Your task to perform on an android device: open chrome privacy settings Image 0: 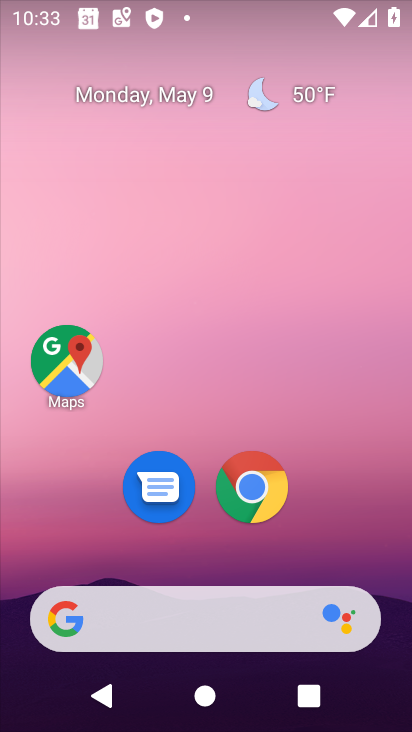
Step 0: click (256, 497)
Your task to perform on an android device: open chrome privacy settings Image 1: 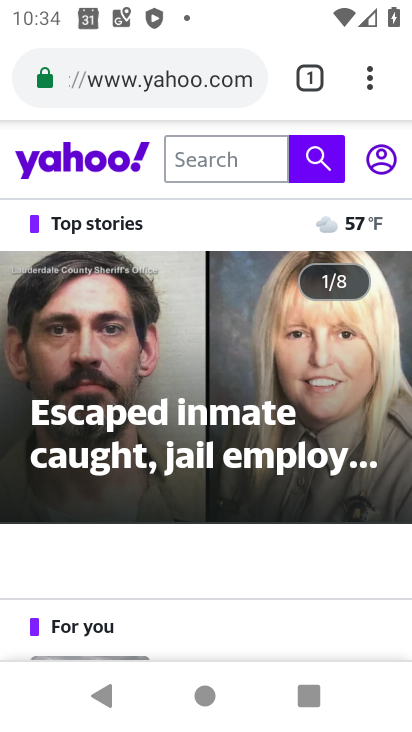
Step 1: click (371, 74)
Your task to perform on an android device: open chrome privacy settings Image 2: 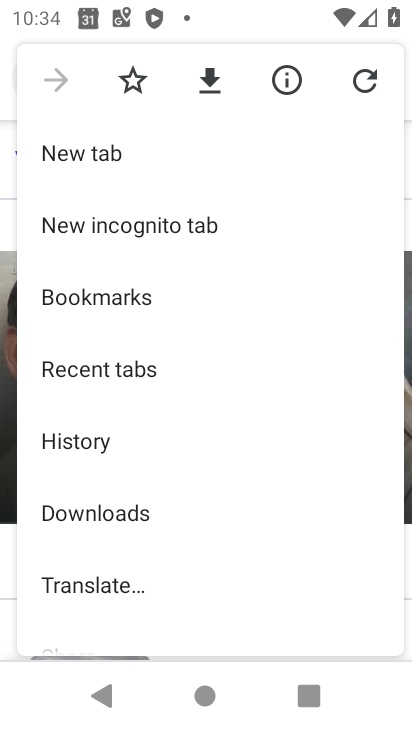
Step 2: drag from (49, 575) to (348, 15)
Your task to perform on an android device: open chrome privacy settings Image 3: 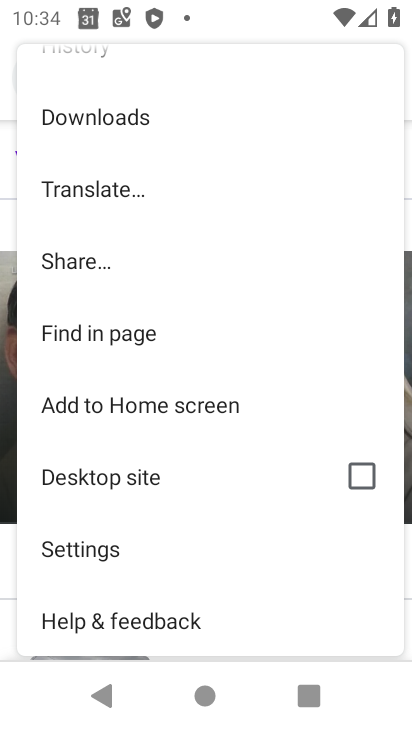
Step 3: click (114, 549)
Your task to perform on an android device: open chrome privacy settings Image 4: 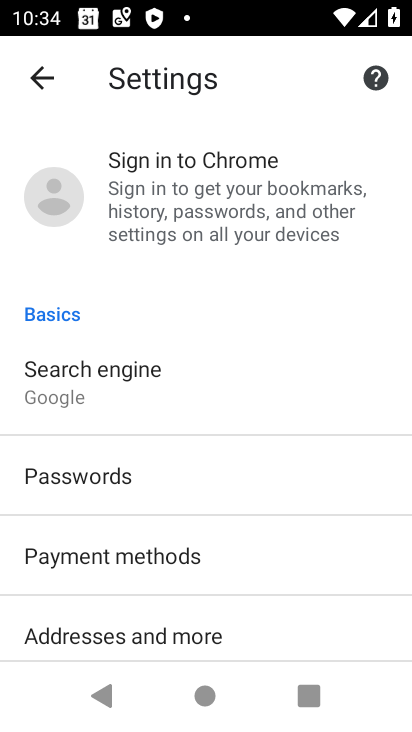
Step 4: drag from (113, 603) to (253, 136)
Your task to perform on an android device: open chrome privacy settings Image 5: 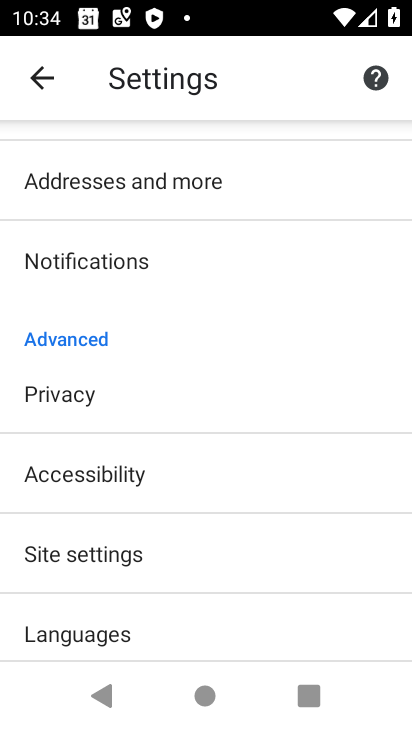
Step 5: click (98, 387)
Your task to perform on an android device: open chrome privacy settings Image 6: 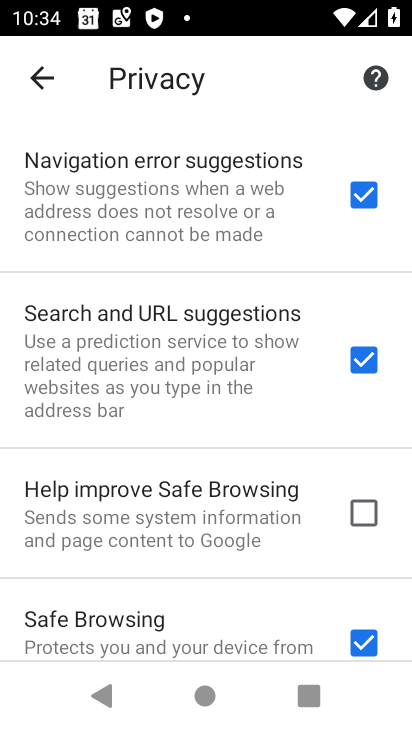
Step 6: task complete